Your task to perform on an android device: Turn on the flashlight Image 0: 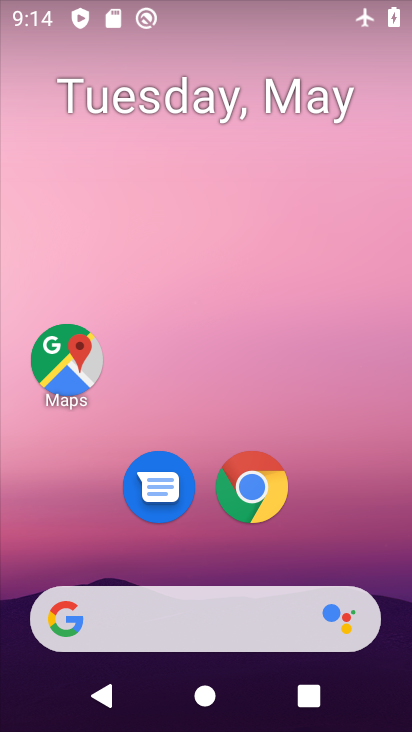
Step 0: drag from (224, 494) to (289, 181)
Your task to perform on an android device: Turn on the flashlight Image 1: 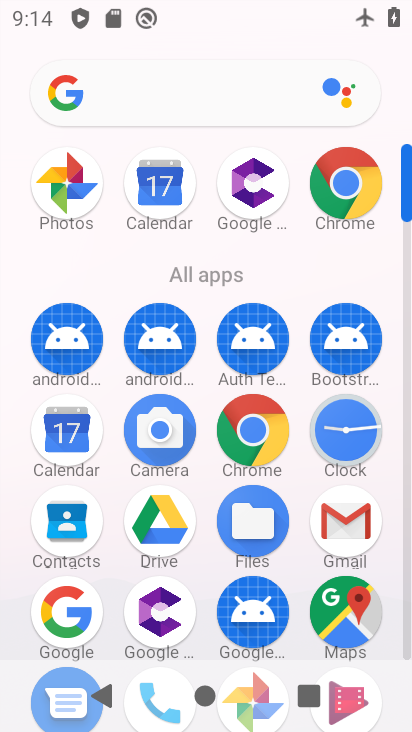
Step 1: drag from (201, 542) to (171, 303)
Your task to perform on an android device: Turn on the flashlight Image 2: 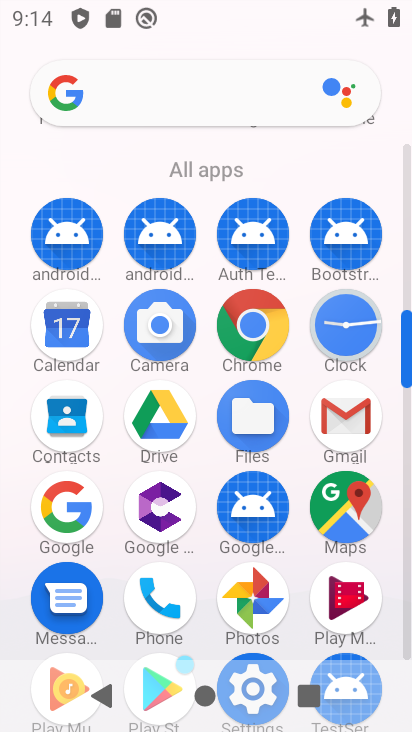
Step 2: drag from (203, 565) to (203, 412)
Your task to perform on an android device: Turn on the flashlight Image 3: 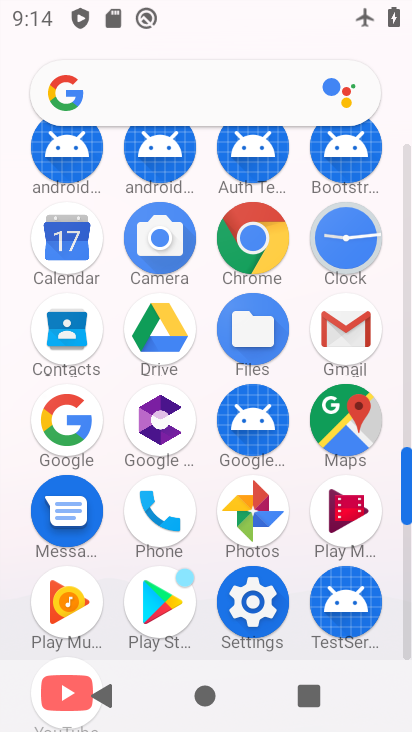
Step 3: click (244, 593)
Your task to perform on an android device: Turn on the flashlight Image 4: 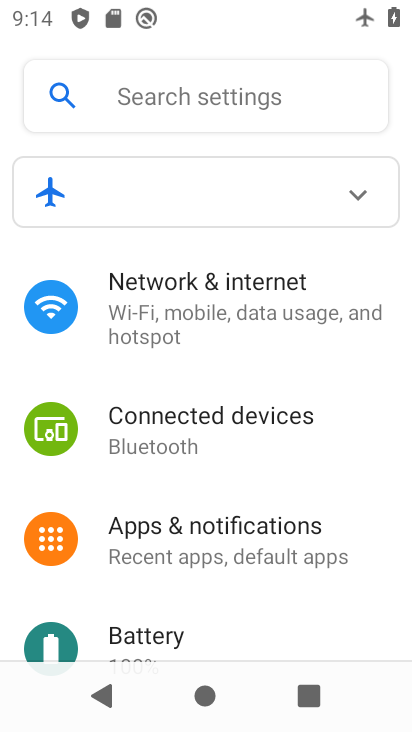
Step 4: drag from (211, 588) to (264, 514)
Your task to perform on an android device: Turn on the flashlight Image 5: 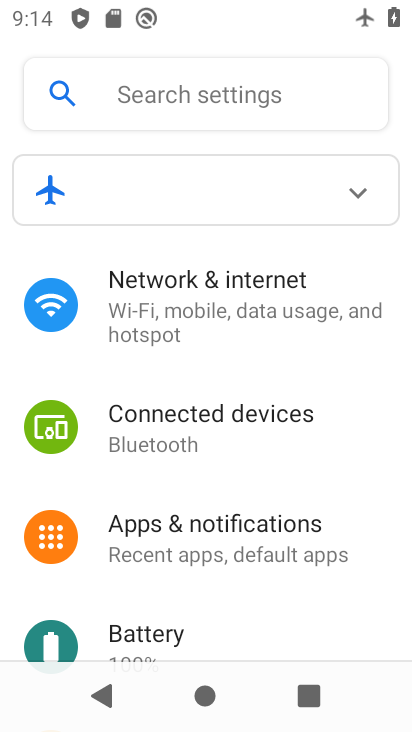
Step 5: click (207, 116)
Your task to perform on an android device: Turn on the flashlight Image 6: 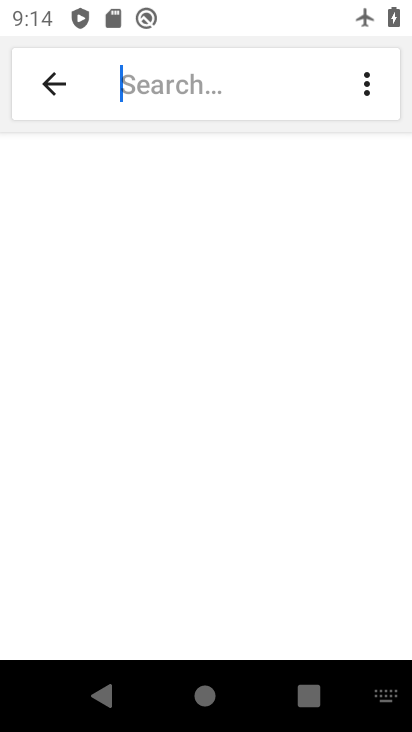
Step 6: click (263, 187)
Your task to perform on an android device: Turn on the flashlight Image 7: 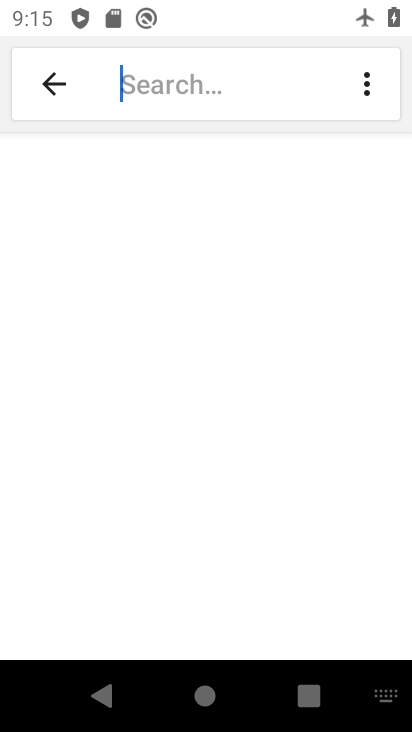
Step 7: click (159, 105)
Your task to perform on an android device: Turn on the flashlight Image 8: 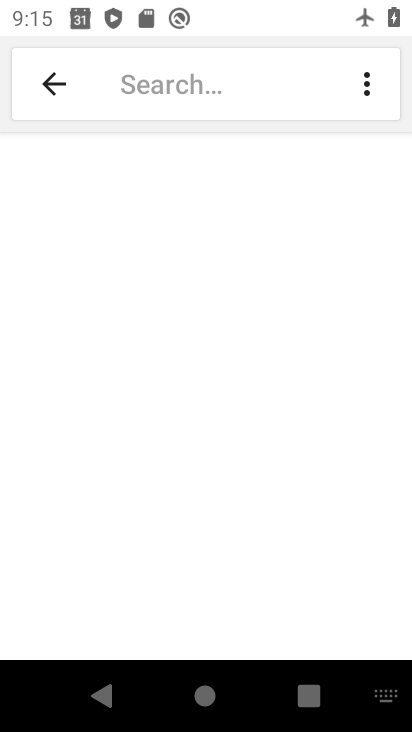
Step 8: type "flashlight"
Your task to perform on an android device: Turn on the flashlight Image 9: 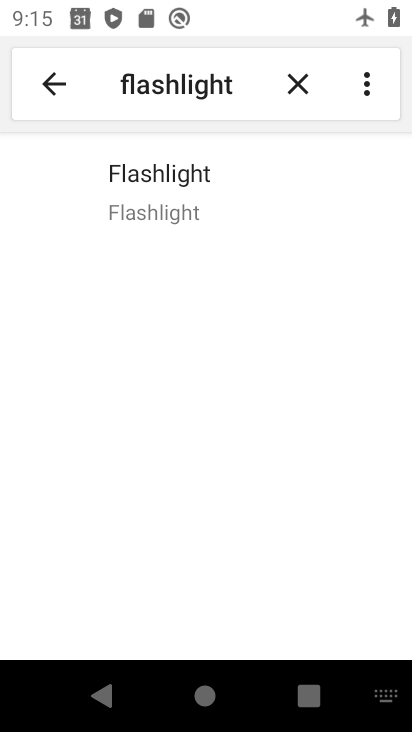
Step 9: click (249, 207)
Your task to perform on an android device: Turn on the flashlight Image 10: 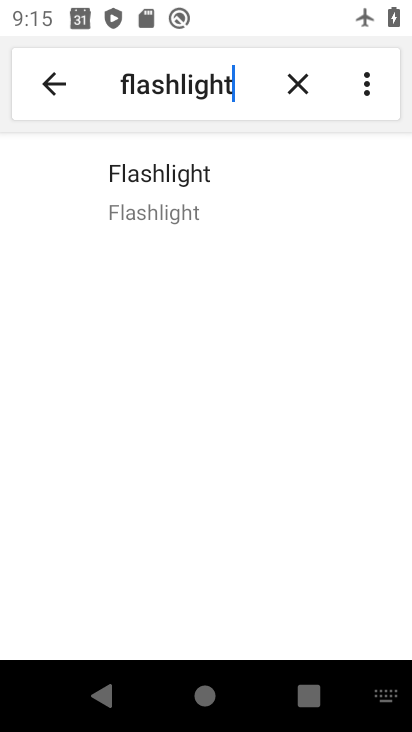
Step 10: drag from (203, 632) to (235, 260)
Your task to perform on an android device: Turn on the flashlight Image 11: 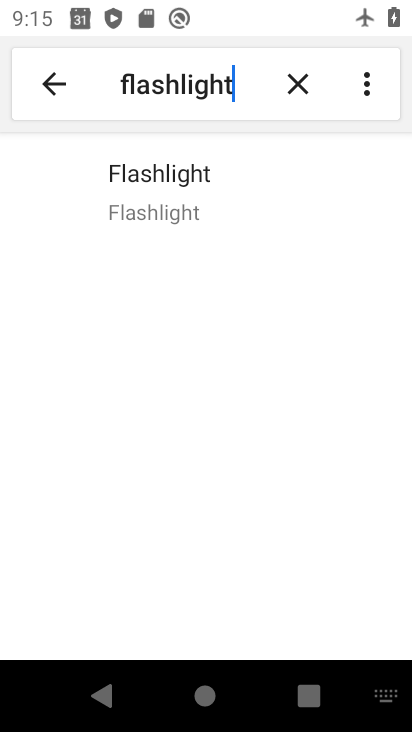
Step 11: click (259, 212)
Your task to perform on an android device: Turn on the flashlight Image 12: 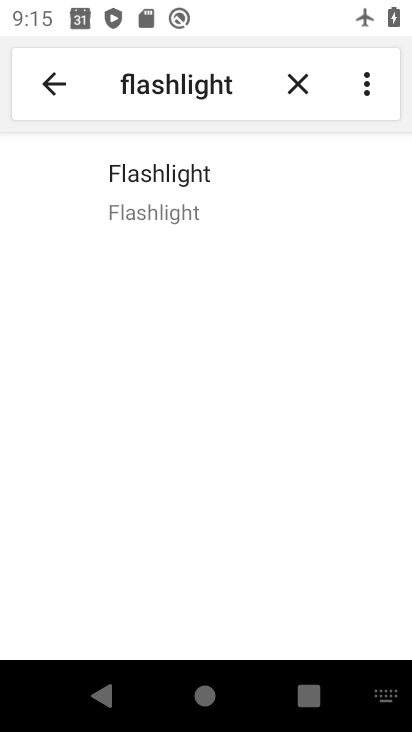
Step 12: click (212, 214)
Your task to perform on an android device: Turn on the flashlight Image 13: 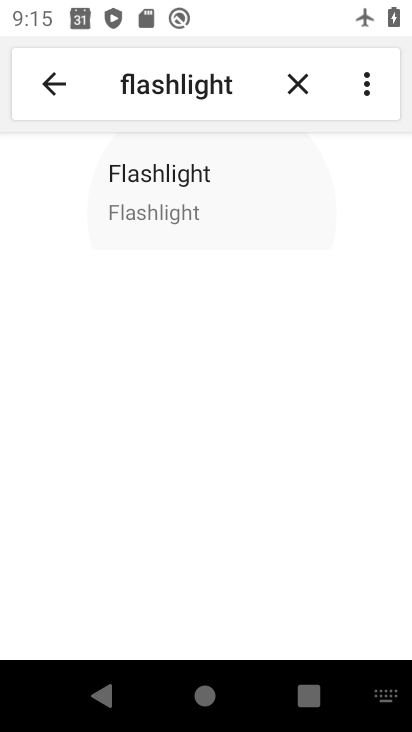
Step 13: click (212, 214)
Your task to perform on an android device: Turn on the flashlight Image 14: 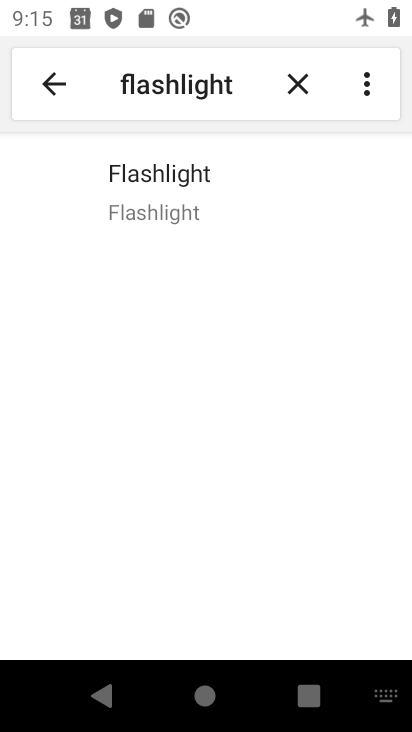
Step 14: task complete